Your task to perform on an android device: choose inbox layout in the gmail app Image 0: 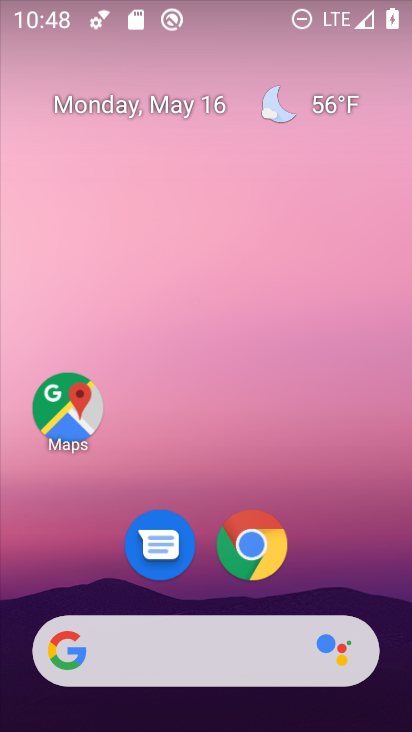
Step 0: drag from (314, 565) to (288, 335)
Your task to perform on an android device: choose inbox layout in the gmail app Image 1: 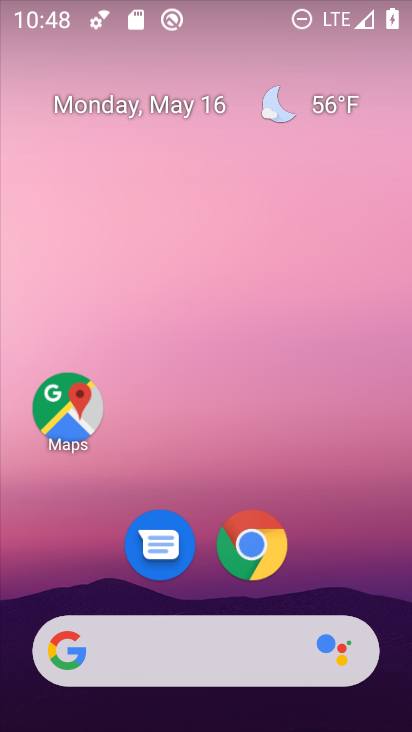
Step 1: drag from (325, 543) to (256, 126)
Your task to perform on an android device: choose inbox layout in the gmail app Image 2: 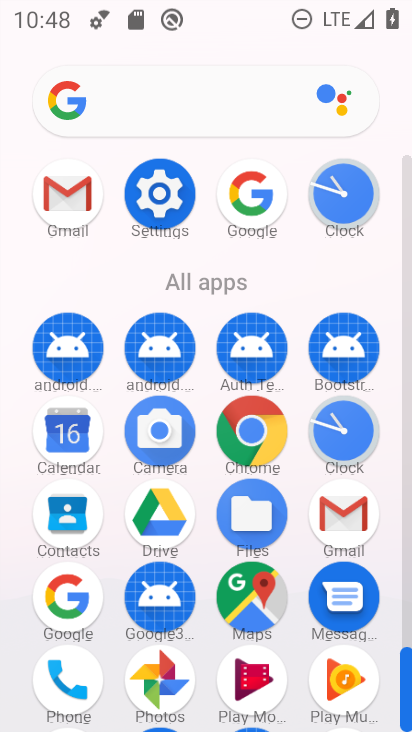
Step 2: click (69, 193)
Your task to perform on an android device: choose inbox layout in the gmail app Image 3: 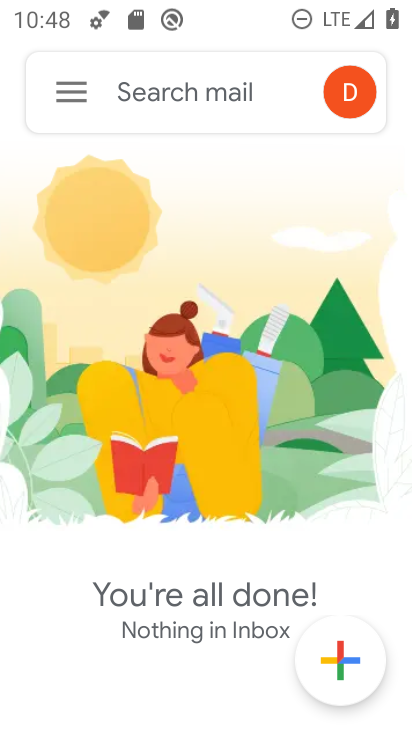
Step 3: click (72, 89)
Your task to perform on an android device: choose inbox layout in the gmail app Image 4: 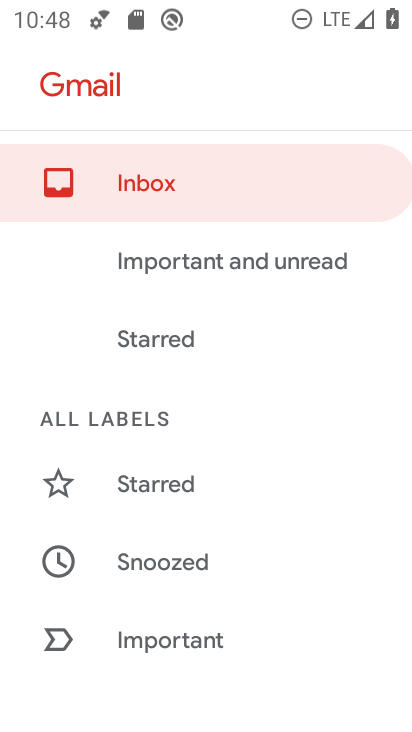
Step 4: drag from (155, 512) to (184, 359)
Your task to perform on an android device: choose inbox layout in the gmail app Image 5: 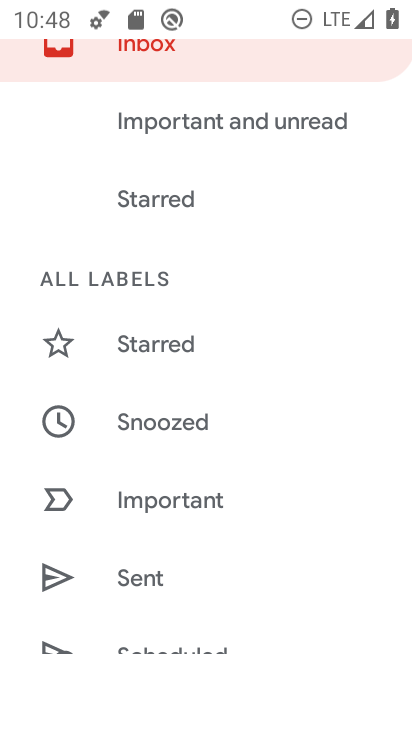
Step 5: drag from (148, 538) to (179, 352)
Your task to perform on an android device: choose inbox layout in the gmail app Image 6: 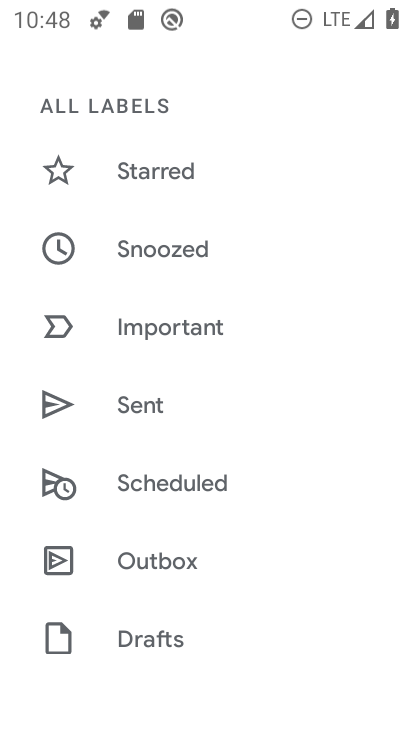
Step 6: drag from (135, 510) to (190, 354)
Your task to perform on an android device: choose inbox layout in the gmail app Image 7: 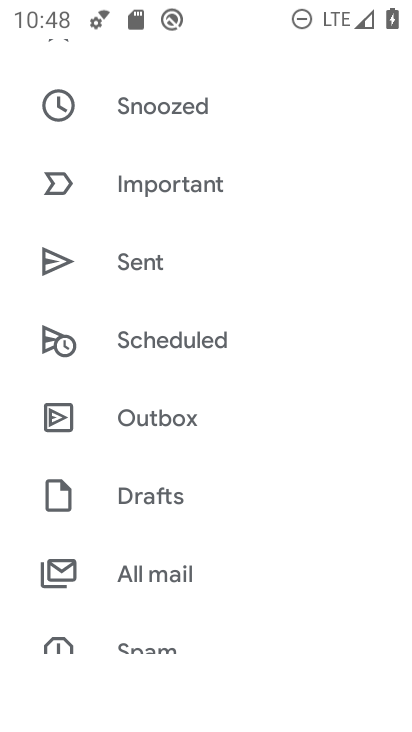
Step 7: drag from (140, 524) to (174, 385)
Your task to perform on an android device: choose inbox layout in the gmail app Image 8: 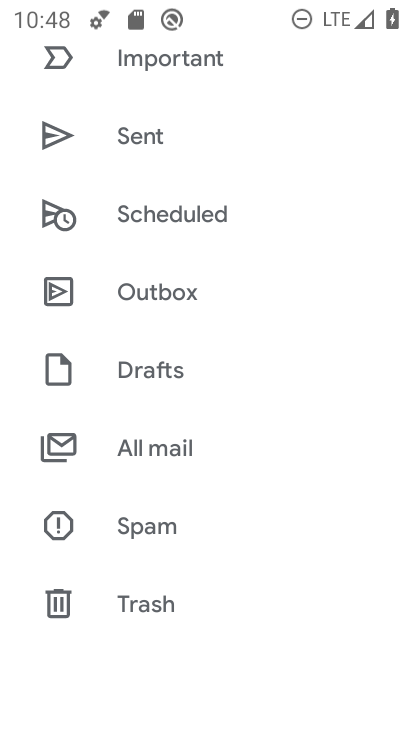
Step 8: drag from (129, 571) to (170, 409)
Your task to perform on an android device: choose inbox layout in the gmail app Image 9: 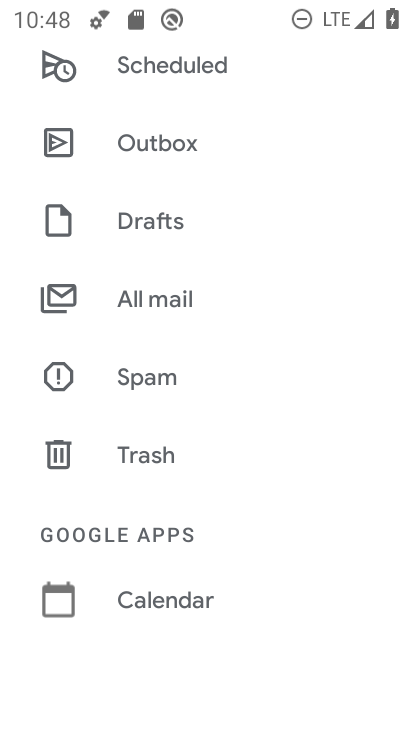
Step 9: drag from (145, 574) to (195, 408)
Your task to perform on an android device: choose inbox layout in the gmail app Image 10: 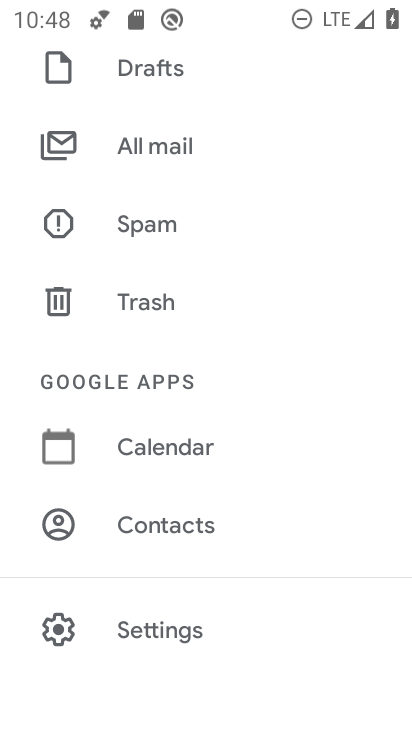
Step 10: drag from (145, 591) to (185, 472)
Your task to perform on an android device: choose inbox layout in the gmail app Image 11: 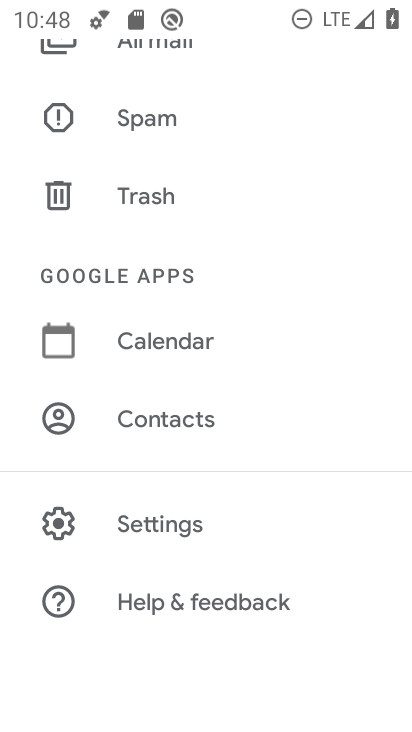
Step 11: click (172, 527)
Your task to perform on an android device: choose inbox layout in the gmail app Image 12: 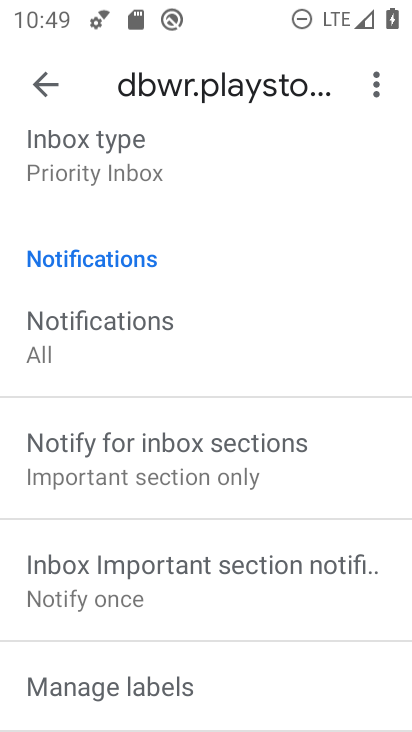
Step 12: click (83, 191)
Your task to perform on an android device: choose inbox layout in the gmail app Image 13: 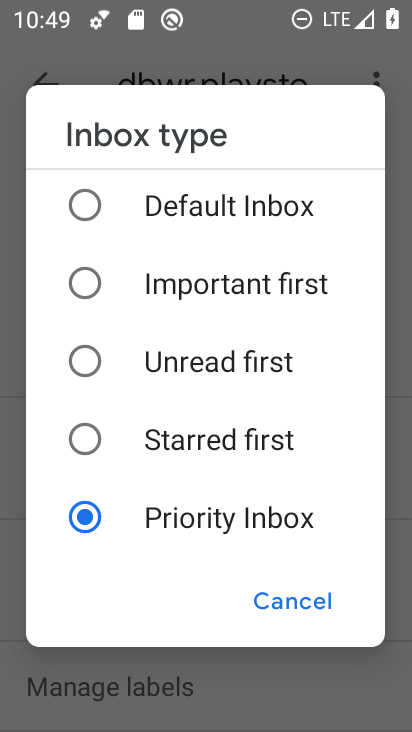
Step 13: click (99, 427)
Your task to perform on an android device: choose inbox layout in the gmail app Image 14: 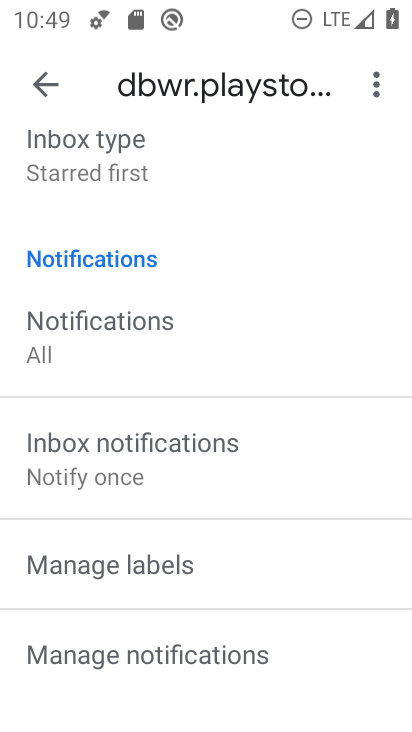
Step 14: task complete